Your task to perform on an android device: turn off notifications in google photos Image 0: 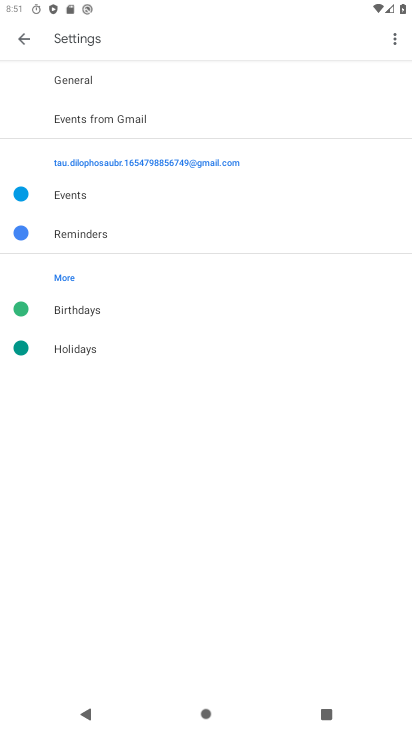
Step 0: press home button
Your task to perform on an android device: turn off notifications in google photos Image 1: 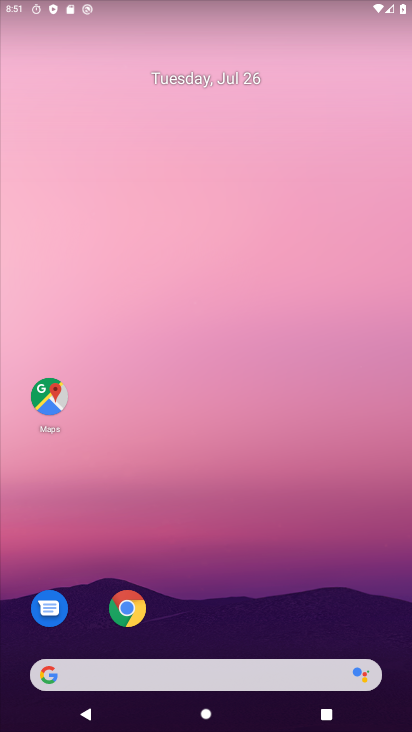
Step 1: drag from (301, 636) to (252, 0)
Your task to perform on an android device: turn off notifications in google photos Image 2: 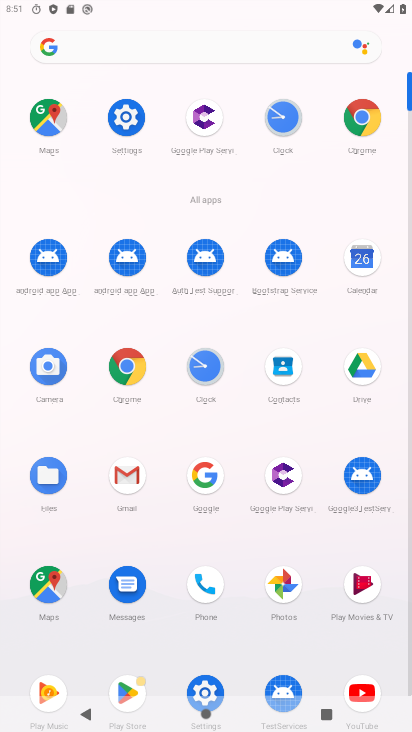
Step 2: click (286, 584)
Your task to perform on an android device: turn off notifications in google photos Image 3: 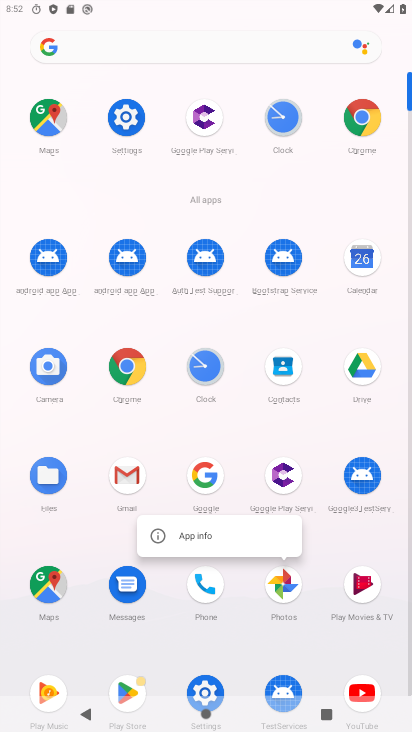
Step 3: click (216, 541)
Your task to perform on an android device: turn off notifications in google photos Image 4: 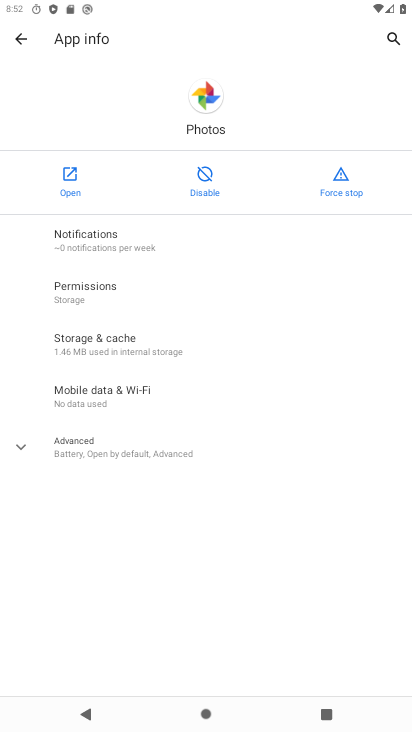
Step 4: click (186, 241)
Your task to perform on an android device: turn off notifications in google photos Image 5: 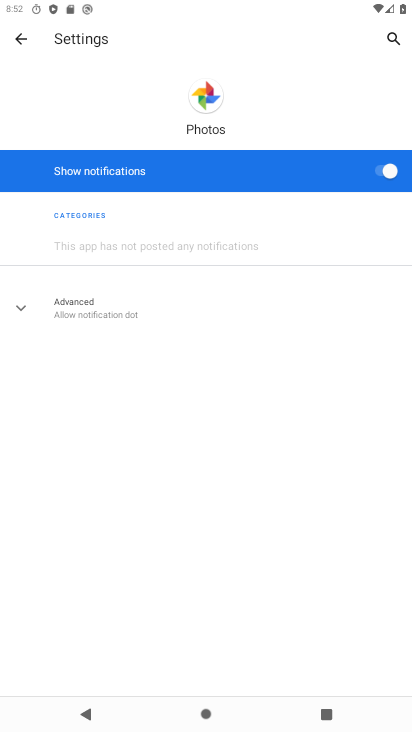
Step 5: click (388, 177)
Your task to perform on an android device: turn off notifications in google photos Image 6: 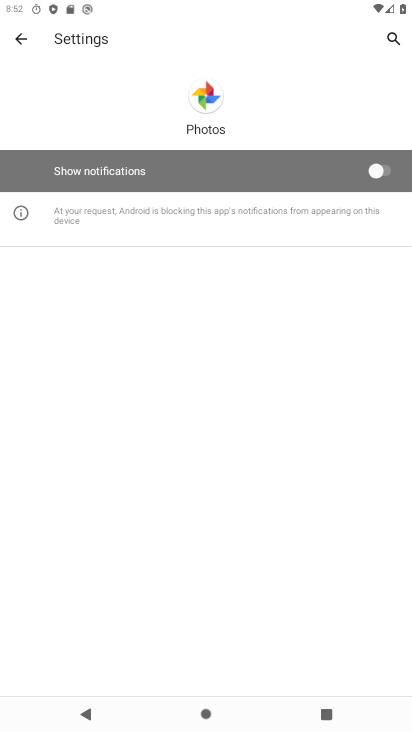
Step 6: task complete